Your task to perform on an android device: Search for sushi restaurants on Maps Image 0: 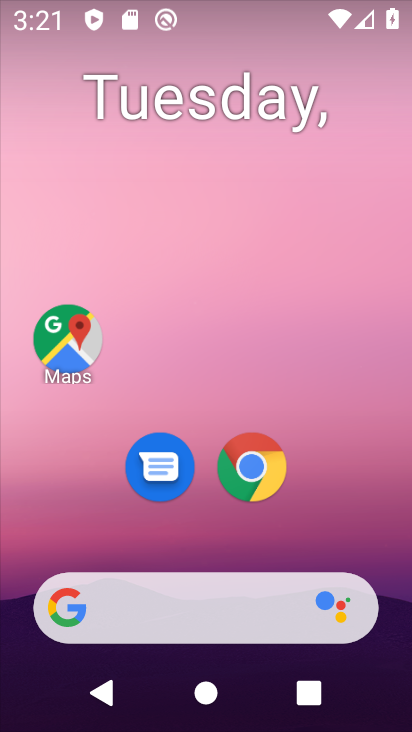
Step 0: drag from (234, 568) to (140, 0)
Your task to perform on an android device: Search for sushi restaurants on Maps Image 1: 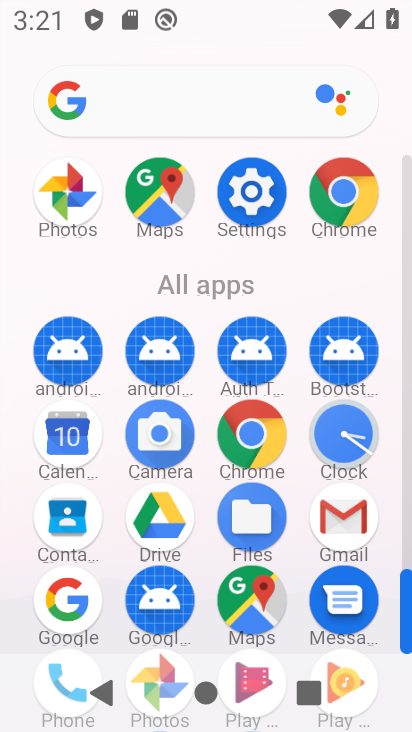
Step 1: click (237, 604)
Your task to perform on an android device: Search for sushi restaurants on Maps Image 2: 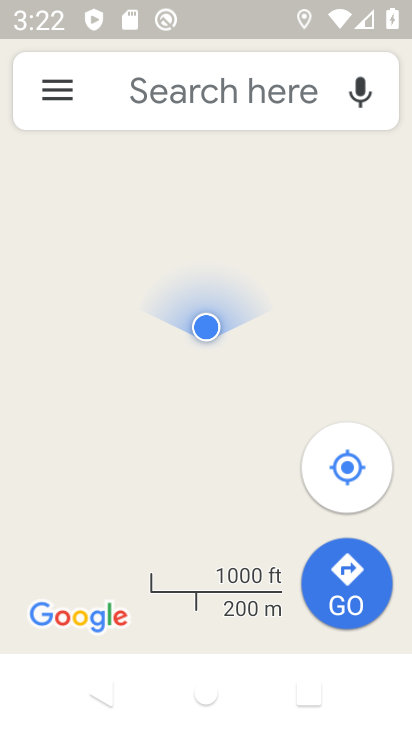
Step 2: click (169, 103)
Your task to perform on an android device: Search for sushi restaurants on Maps Image 3: 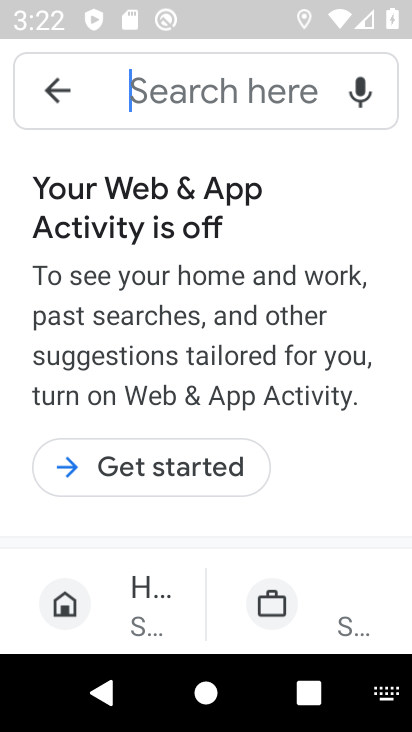
Step 3: click (195, 451)
Your task to perform on an android device: Search for sushi restaurants on Maps Image 4: 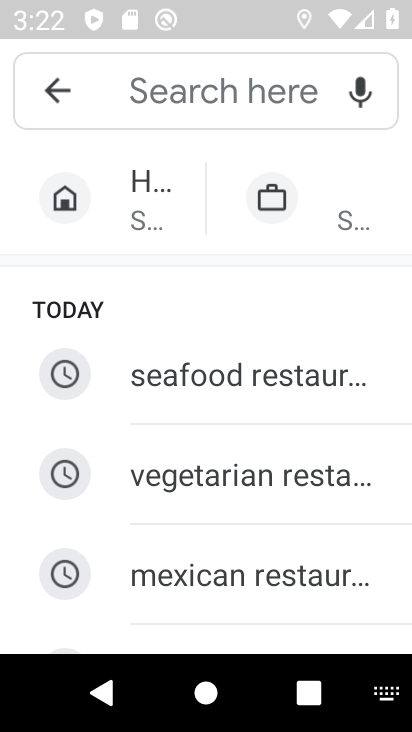
Step 4: drag from (234, 517) to (214, 318)
Your task to perform on an android device: Search for sushi restaurants on Maps Image 5: 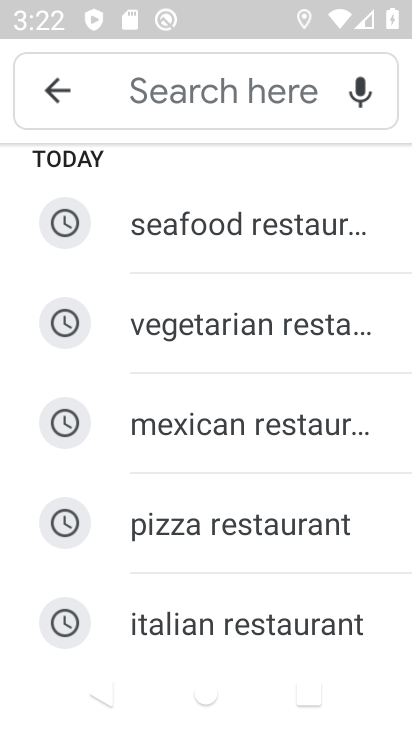
Step 5: drag from (246, 548) to (226, 269)
Your task to perform on an android device: Search for sushi restaurants on Maps Image 6: 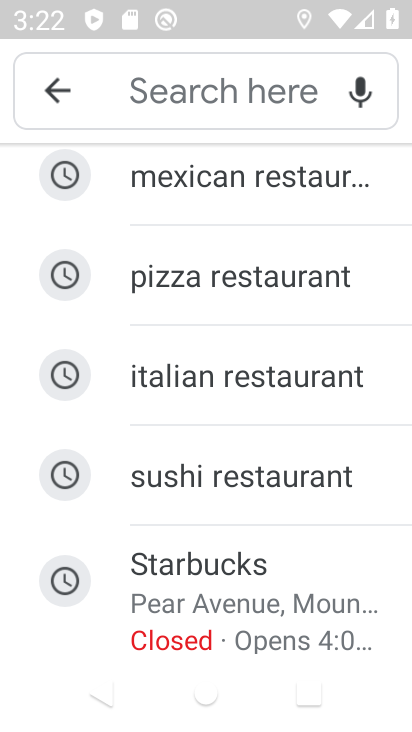
Step 6: type "sushi"
Your task to perform on an android device: Search for sushi restaurants on Maps Image 7: 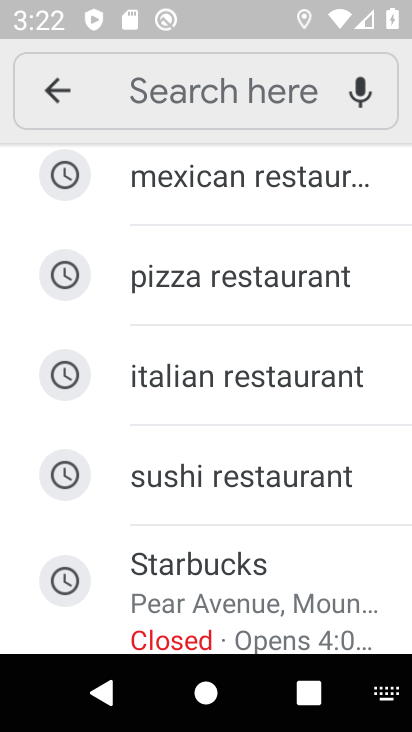
Step 7: type ""
Your task to perform on an android device: Search for sushi restaurants on Maps Image 8: 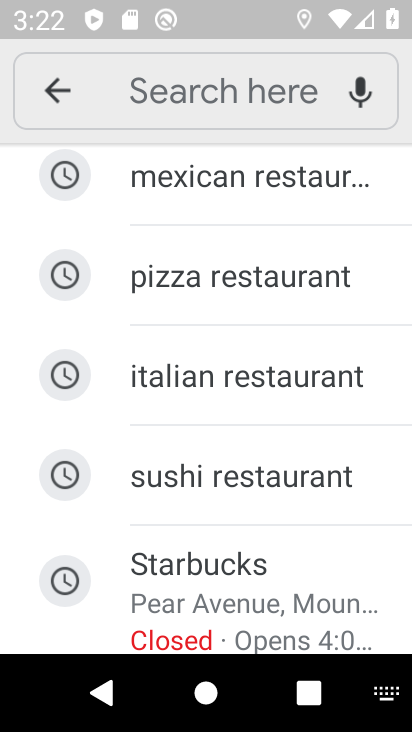
Step 8: click (150, 458)
Your task to perform on an android device: Search for sushi restaurants on Maps Image 9: 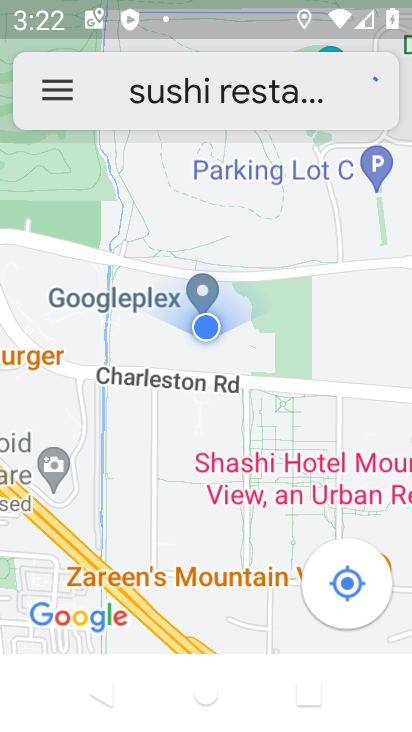
Step 9: task complete